Your task to perform on an android device: set default search engine in the chrome app Image 0: 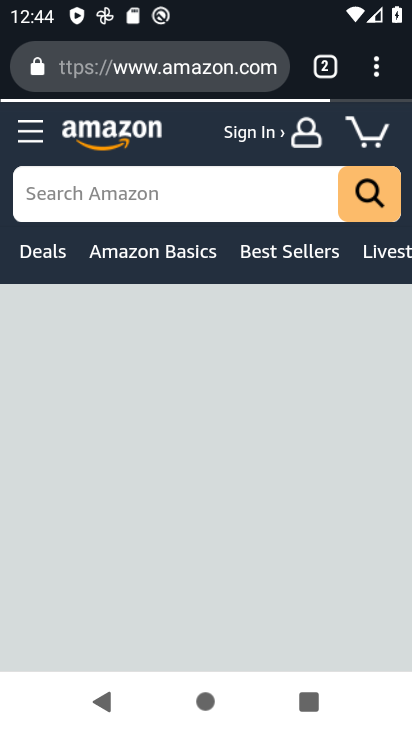
Step 0: press home button
Your task to perform on an android device: set default search engine in the chrome app Image 1: 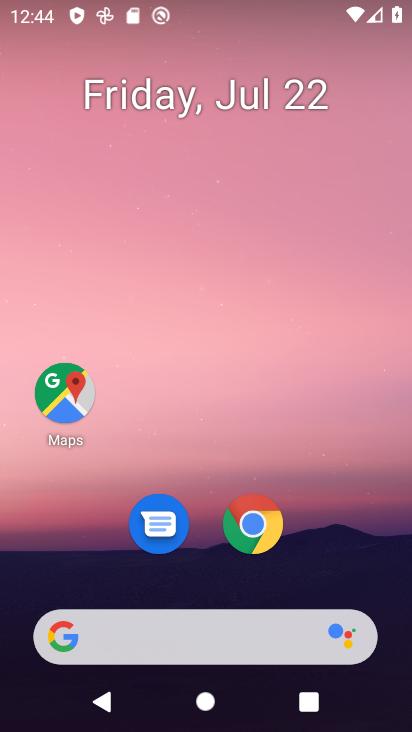
Step 1: click (247, 532)
Your task to perform on an android device: set default search engine in the chrome app Image 2: 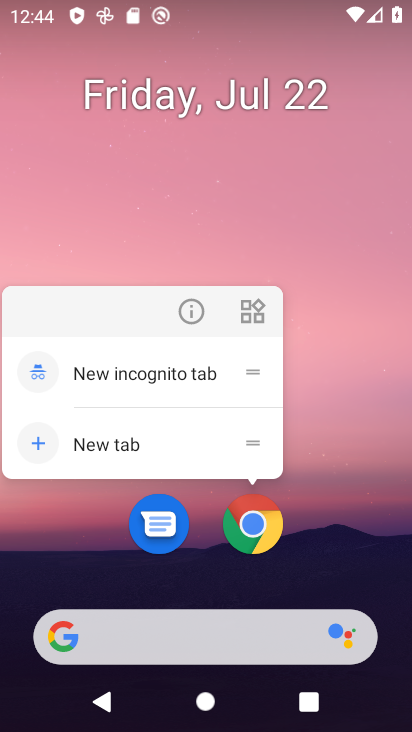
Step 2: click (256, 522)
Your task to perform on an android device: set default search engine in the chrome app Image 3: 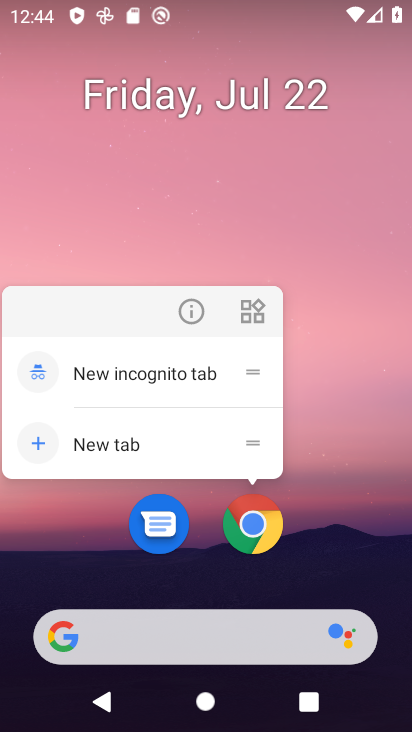
Step 3: click (256, 521)
Your task to perform on an android device: set default search engine in the chrome app Image 4: 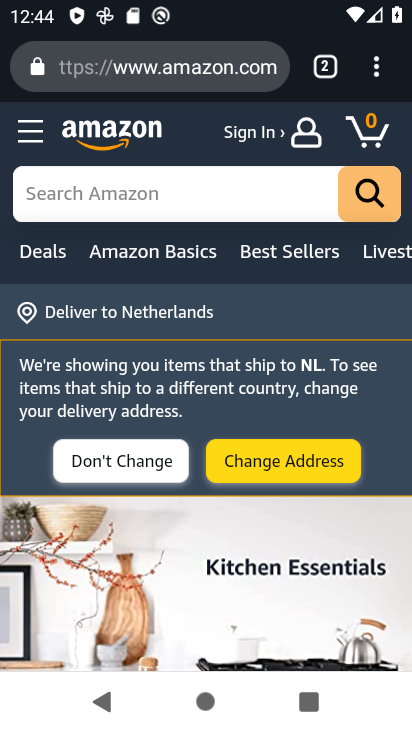
Step 4: drag from (378, 63) to (196, 525)
Your task to perform on an android device: set default search engine in the chrome app Image 5: 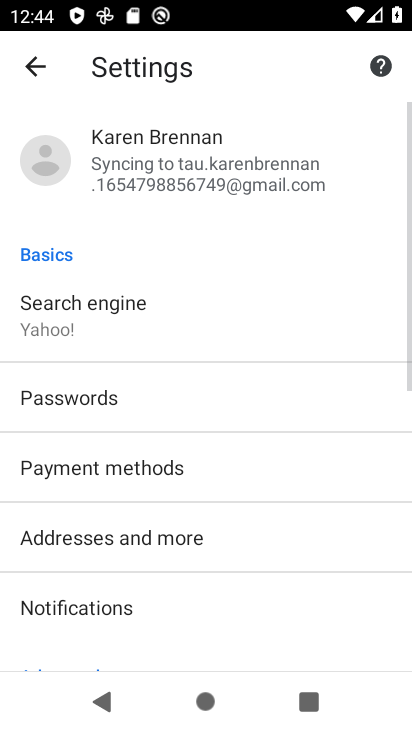
Step 5: click (117, 325)
Your task to perform on an android device: set default search engine in the chrome app Image 6: 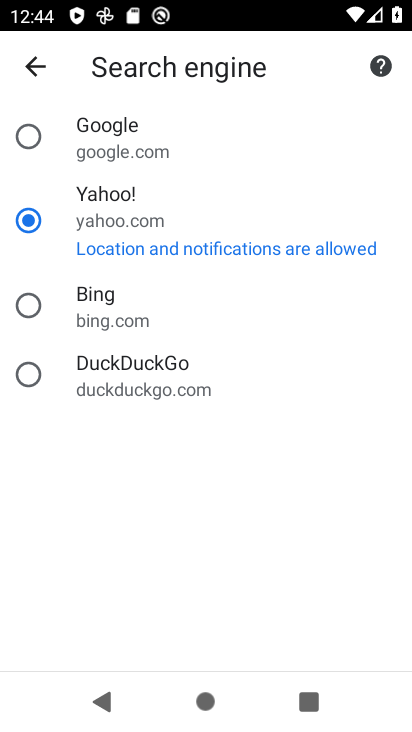
Step 6: click (26, 130)
Your task to perform on an android device: set default search engine in the chrome app Image 7: 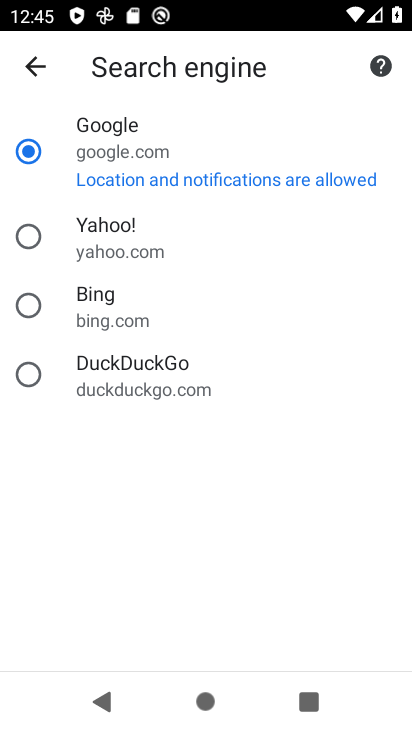
Step 7: task complete